Your task to perform on an android device: Search for seafood restaurants on Google Maps Image 0: 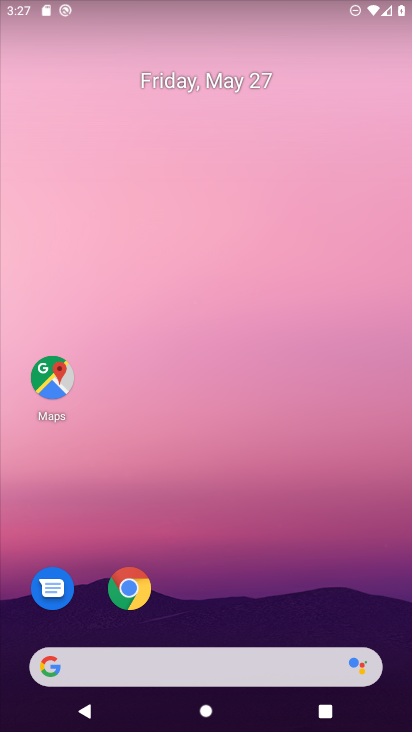
Step 0: click (63, 396)
Your task to perform on an android device: Search for seafood restaurants on Google Maps Image 1: 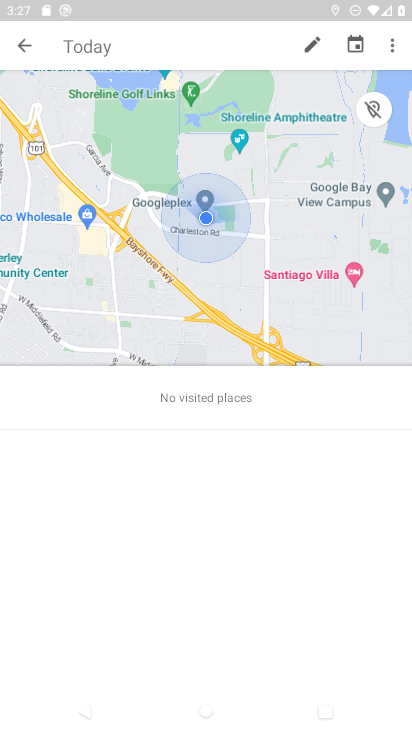
Step 1: click (25, 53)
Your task to perform on an android device: Search for seafood restaurants on Google Maps Image 2: 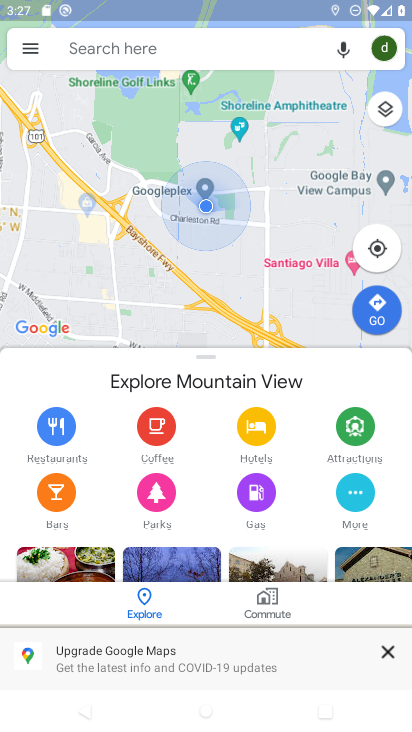
Step 2: click (156, 44)
Your task to perform on an android device: Search for seafood restaurants on Google Maps Image 3: 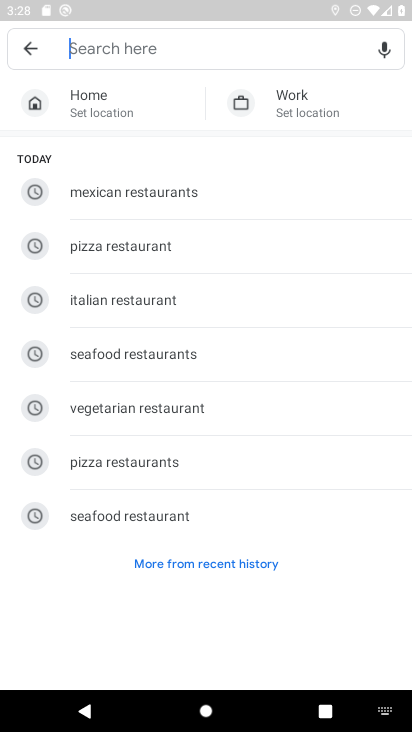
Step 3: click (146, 347)
Your task to perform on an android device: Search for seafood restaurants on Google Maps Image 4: 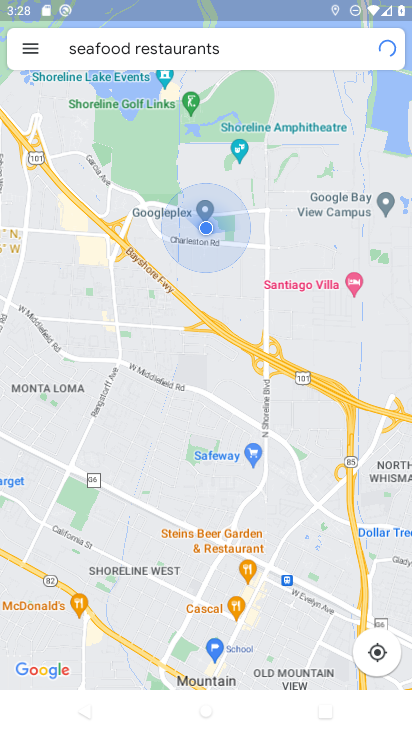
Step 4: task complete